Your task to perform on an android device: turn notification dots off Image 0: 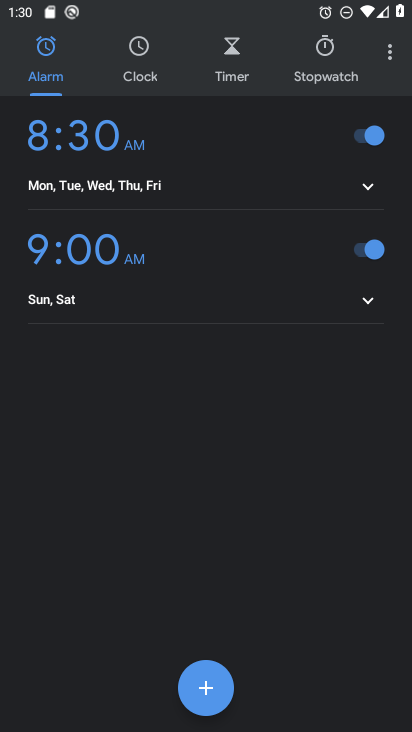
Step 0: press home button
Your task to perform on an android device: turn notification dots off Image 1: 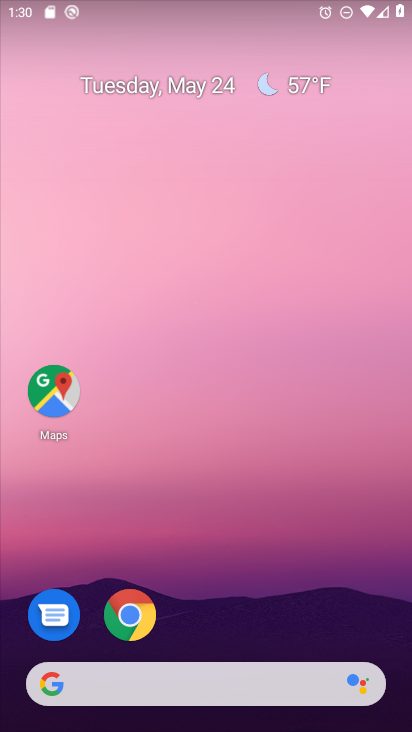
Step 1: drag from (237, 651) to (220, 273)
Your task to perform on an android device: turn notification dots off Image 2: 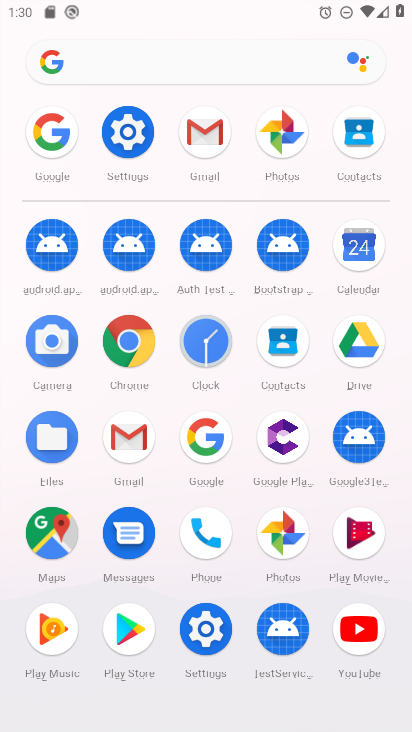
Step 2: click (207, 640)
Your task to perform on an android device: turn notification dots off Image 3: 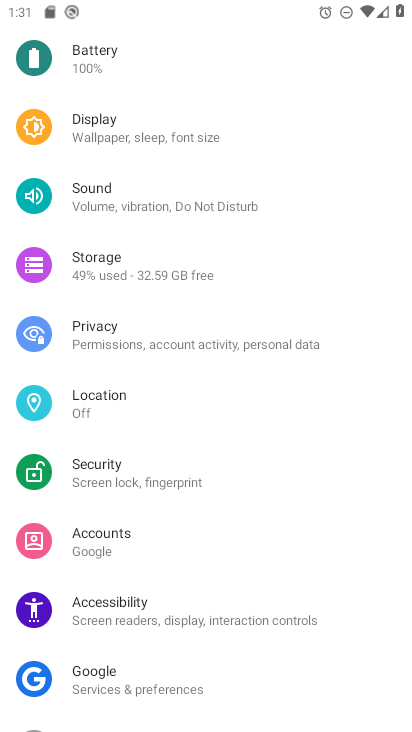
Step 3: drag from (211, 155) to (231, 623)
Your task to perform on an android device: turn notification dots off Image 4: 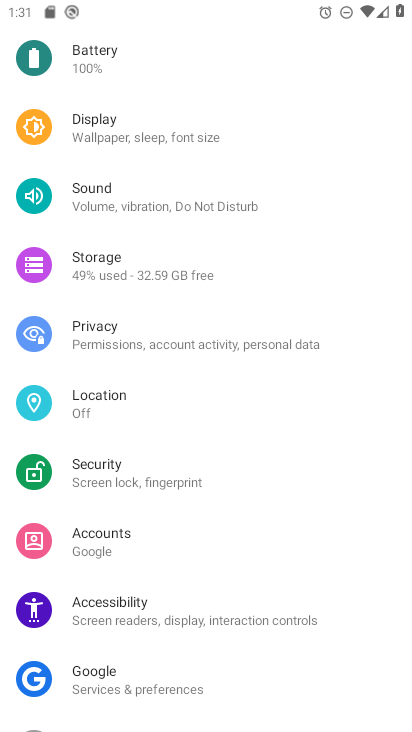
Step 4: drag from (242, 64) to (234, 519)
Your task to perform on an android device: turn notification dots off Image 5: 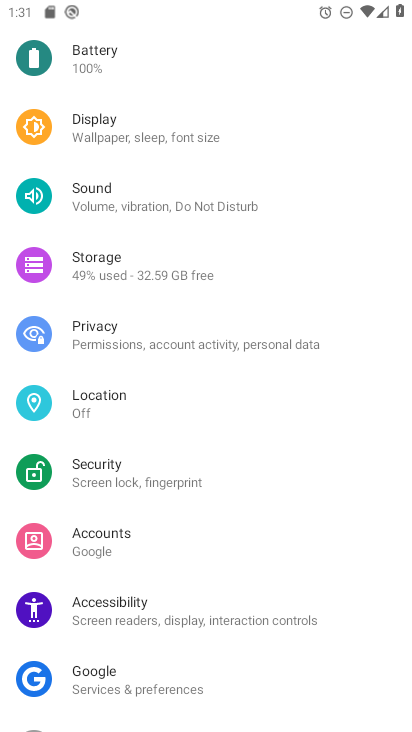
Step 5: drag from (204, 9) to (224, 510)
Your task to perform on an android device: turn notification dots off Image 6: 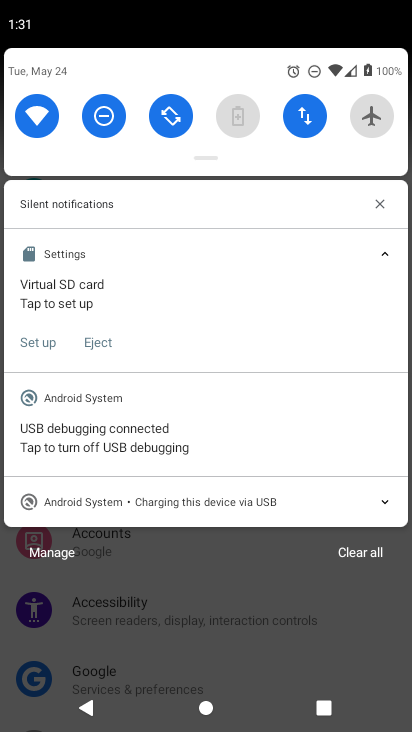
Step 6: drag from (222, 559) to (214, 88)
Your task to perform on an android device: turn notification dots off Image 7: 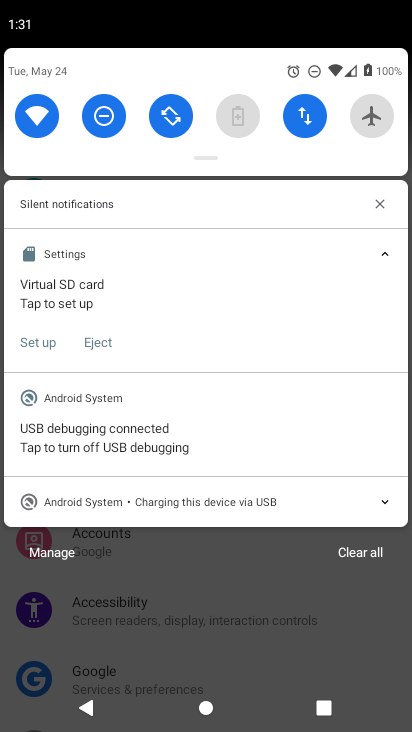
Step 7: click (379, 551)
Your task to perform on an android device: turn notification dots off Image 8: 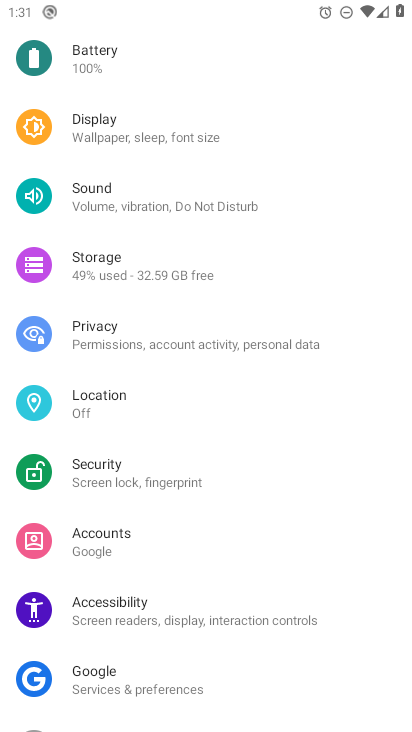
Step 8: drag from (209, 121) to (252, 665)
Your task to perform on an android device: turn notification dots off Image 9: 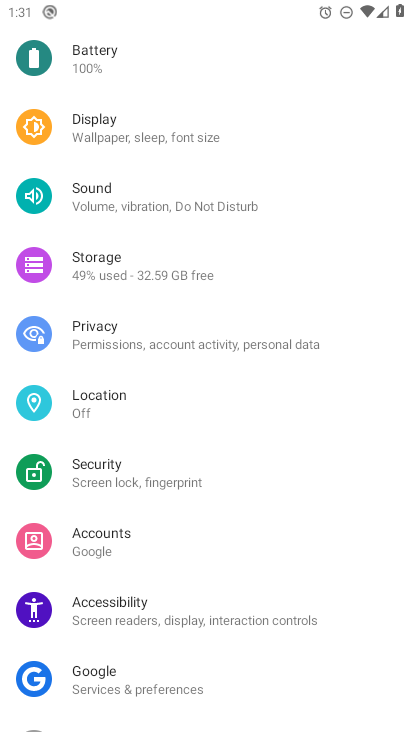
Step 9: drag from (256, 136) to (273, 623)
Your task to perform on an android device: turn notification dots off Image 10: 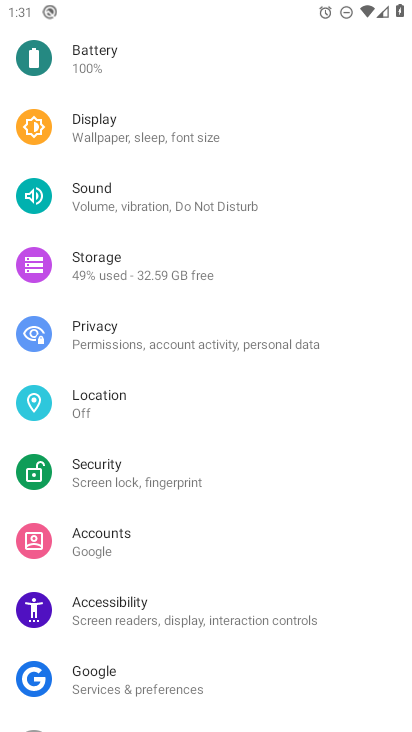
Step 10: drag from (253, 75) to (220, 606)
Your task to perform on an android device: turn notification dots off Image 11: 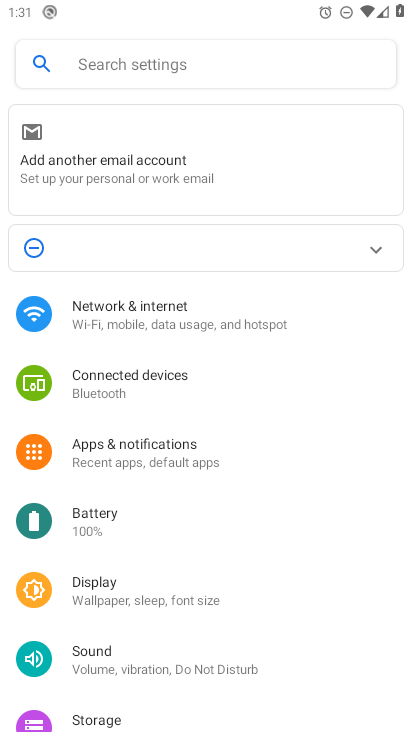
Step 11: click (152, 457)
Your task to perform on an android device: turn notification dots off Image 12: 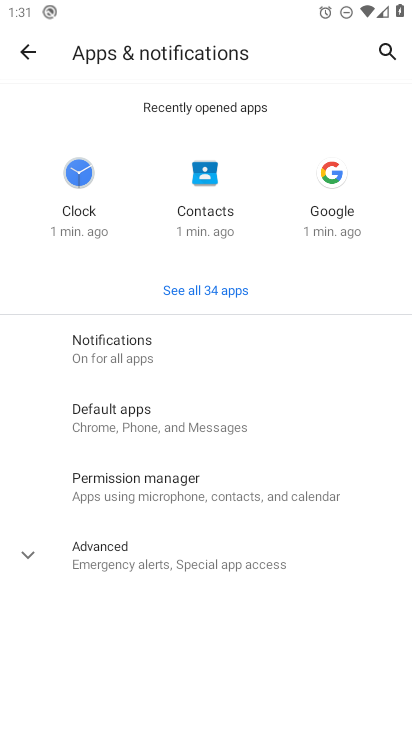
Step 12: click (98, 347)
Your task to perform on an android device: turn notification dots off Image 13: 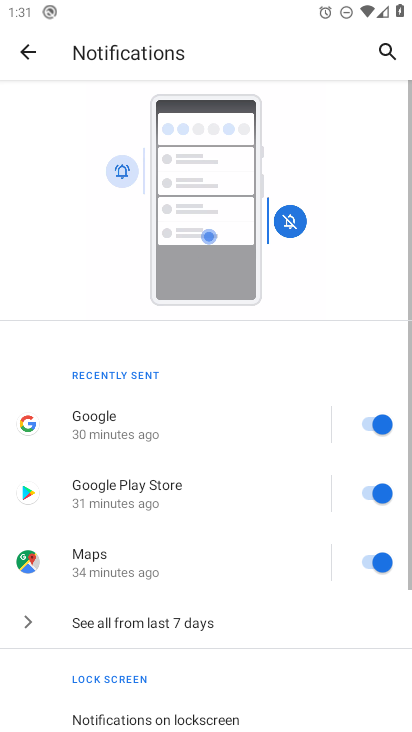
Step 13: drag from (132, 659) to (181, 237)
Your task to perform on an android device: turn notification dots off Image 14: 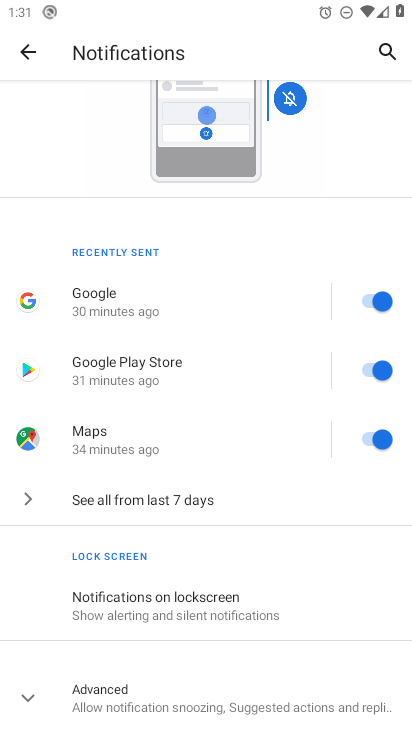
Step 14: click (109, 707)
Your task to perform on an android device: turn notification dots off Image 15: 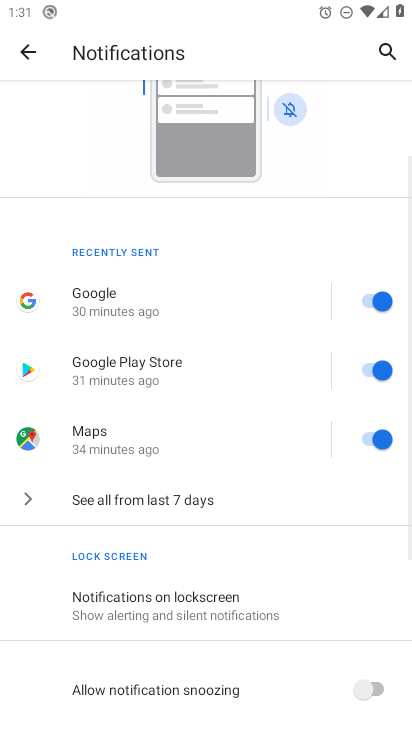
Step 15: drag from (117, 681) to (158, 297)
Your task to perform on an android device: turn notification dots off Image 16: 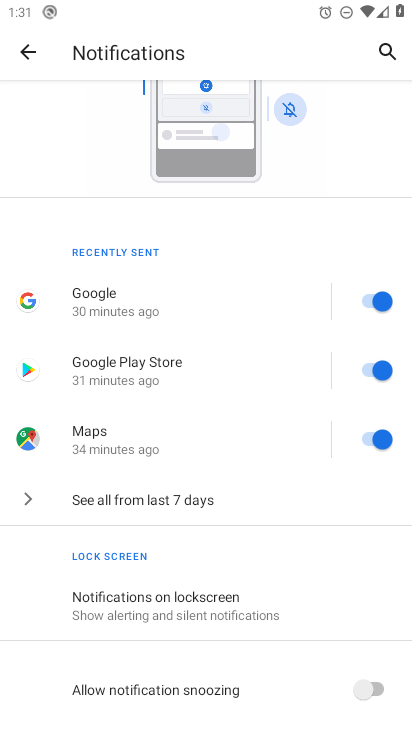
Step 16: drag from (260, 716) to (226, 245)
Your task to perform on an android device: turn notification dots off Image 17: 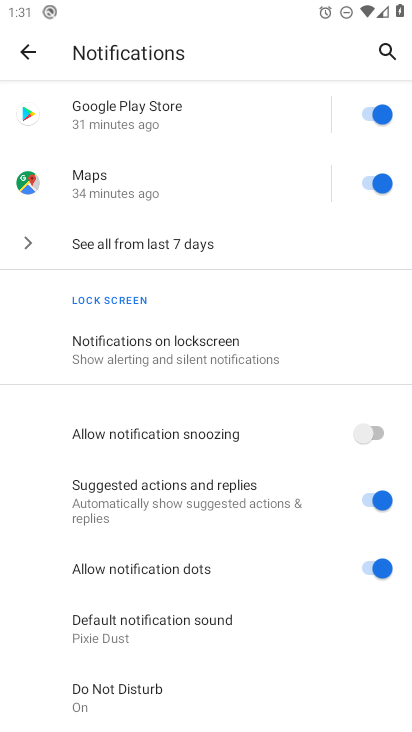
Step 17: click (359, 560)
Your task to perform on an android device: turn notification dots off Image 18: 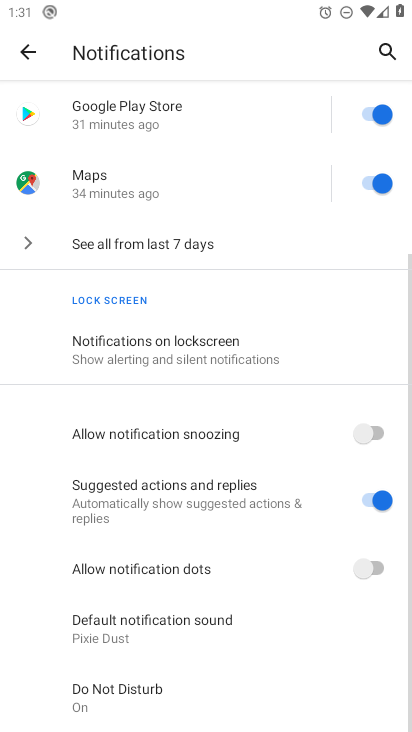
Step 18: task complete